Your task to perform on an android device: Open CNN.com Image 0: 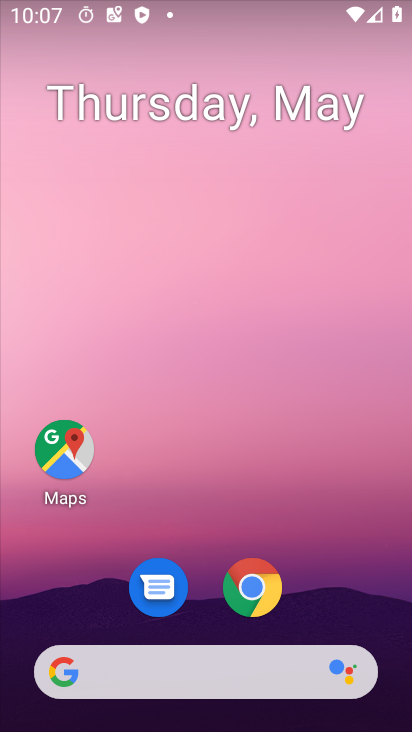
Step 0: click (255, 587)
Your task to perform on an android device: Open CNN.com Image 1: 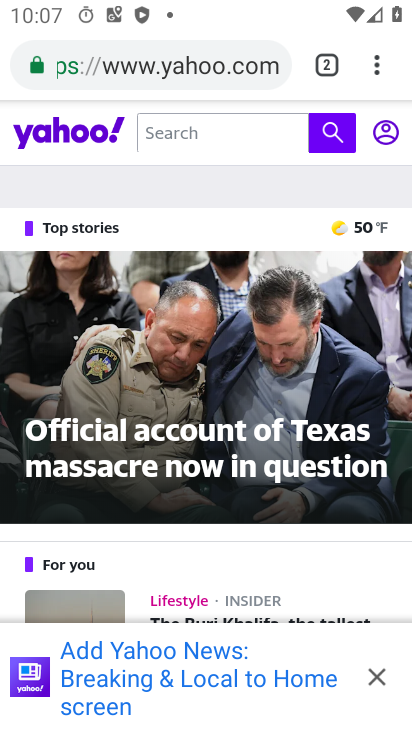
Step 1: click (75, 62)
Your task to perform on an android device: Open CNN.com Image 2: 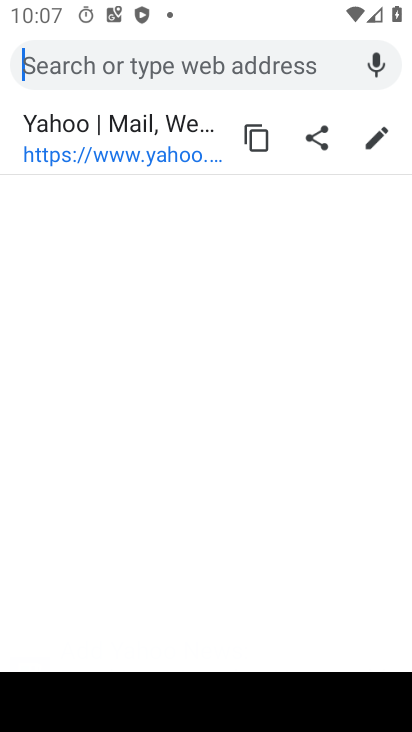
Step 2: type "cnn.com"
Your task to perform on an android device: Open CNN.com Image 3: 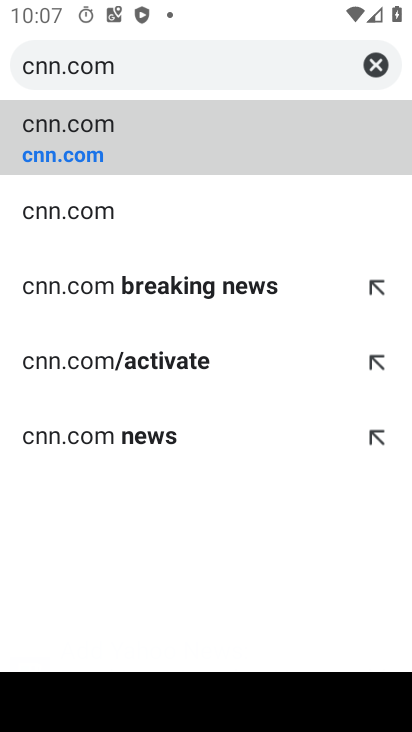
Step 3: click (87, 163)
Your task to perform on an android device: Open CNN.com Image 4: 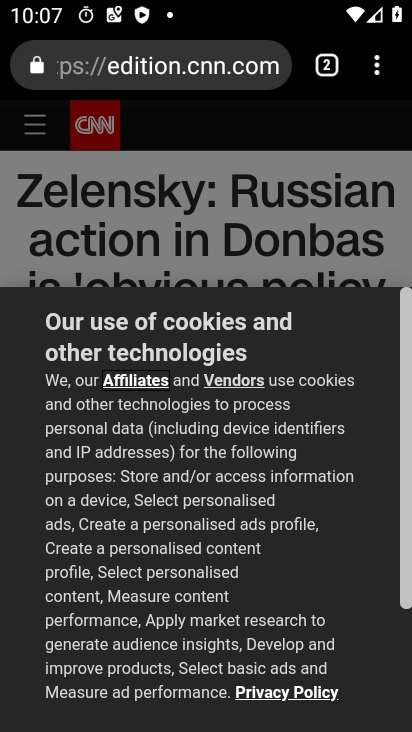
Step 4: task complete